Your task to perform on an android device: Go to location settings Image 0: 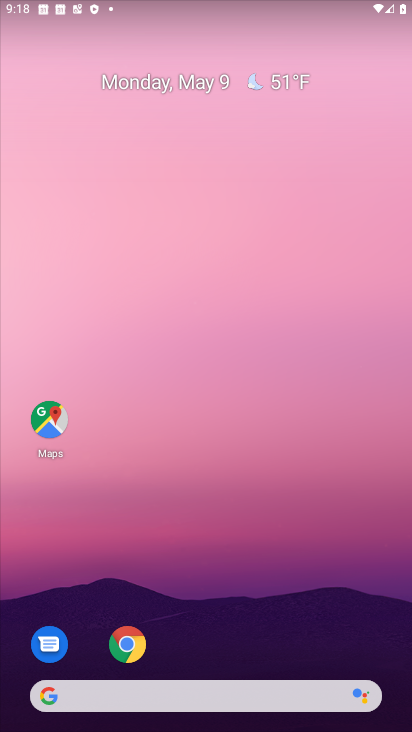
Step 0: drag from (230, 675) to (153, 303)
Your task to perform on an android device: Go to location settings Image 1: 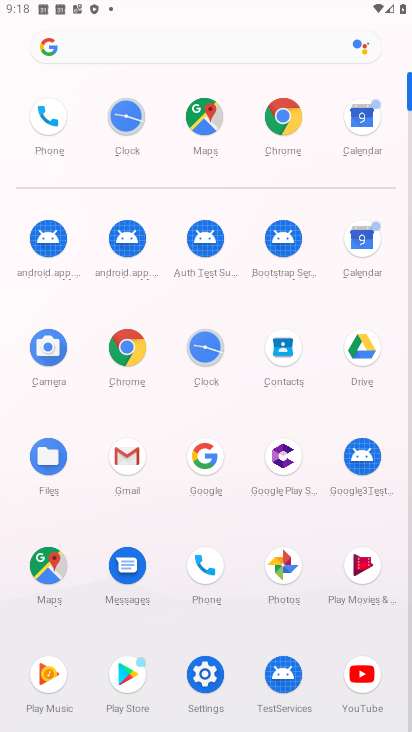
Step 1: click (197, 680)
Your task to perform on an android device: Go to location settings Image 2: 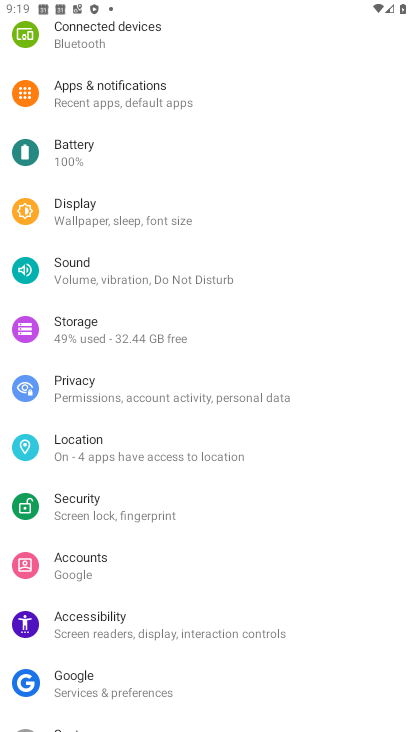
Step 2: click (58, 442)
Your task to perform on an android device: Go to location settings Image 3: 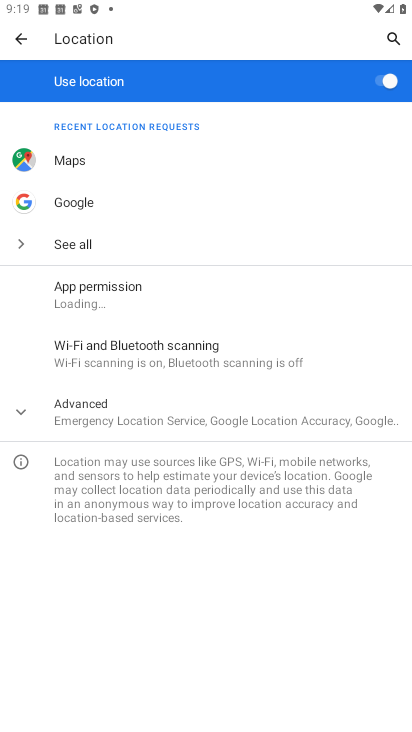
Step 3: click (84, 431)
Your task to perform on an android device: Go to location settings Image 4: 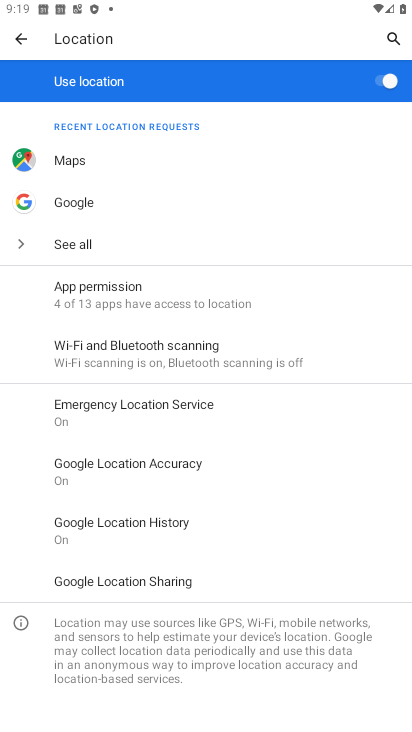
Step 4: task complete